Your task to perform on an android device: open device folders in google photos Image 0: 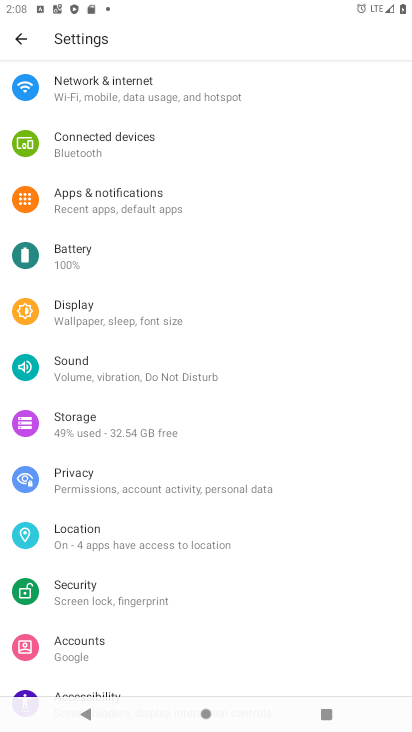
Step 0: press home button
Your task to perform on an android device: open device folders in google photos Image 1: 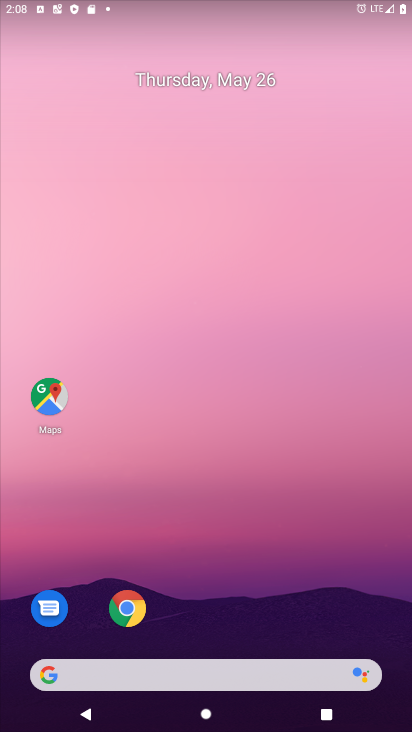
Step 1: drag from (311, 631) to (199, 112)
Your task to perform on an android device: open device folders in google photos Image 2: 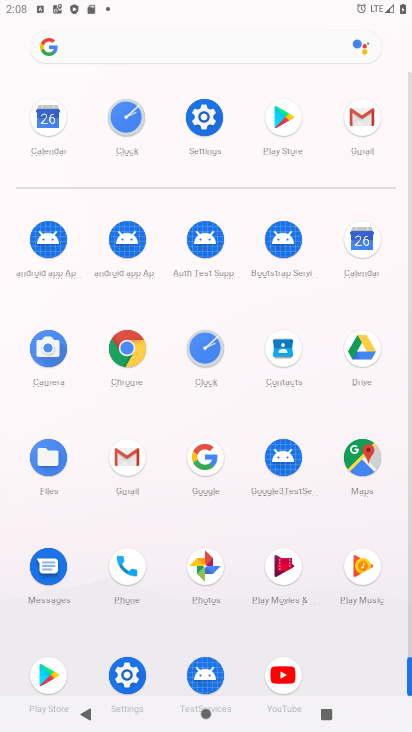
Step 2: click (210, 563)
Your task to perform on an android device: open device folders in google photos Image 3: 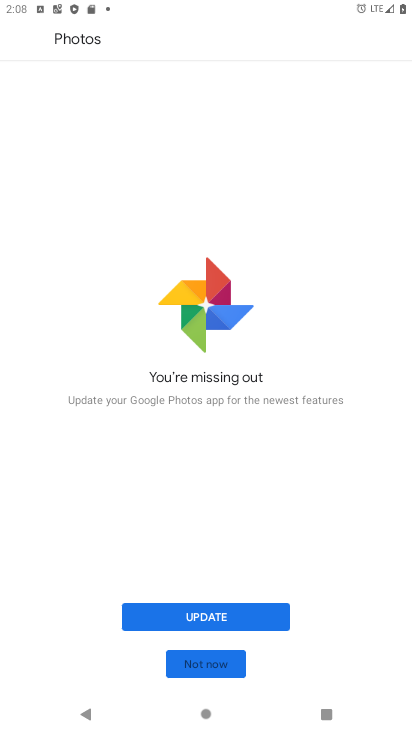
Step 3: click (210, 621)
Your task to perform on an android device: open device folders in google photos Image 4: 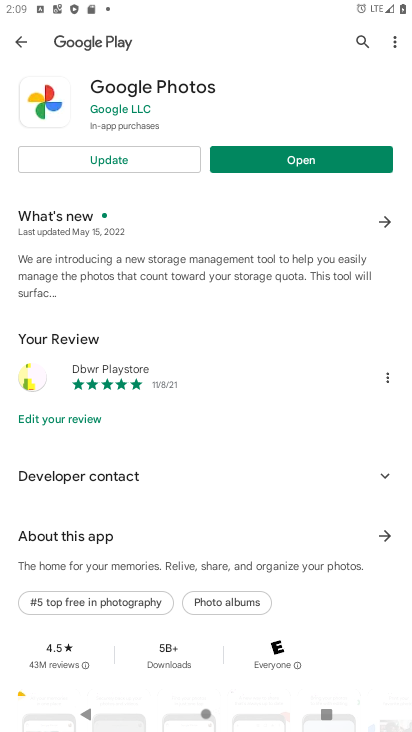
Step 4: click (114, 154)
Your task to perform on an android device: open device folders in google photos Image 5: 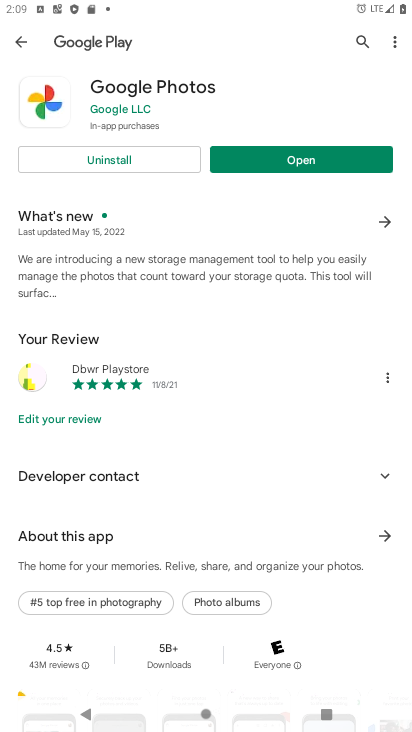
Step 5: click (309, 149)
Your task to perform on an android device: open device folders in google photos Image 6: 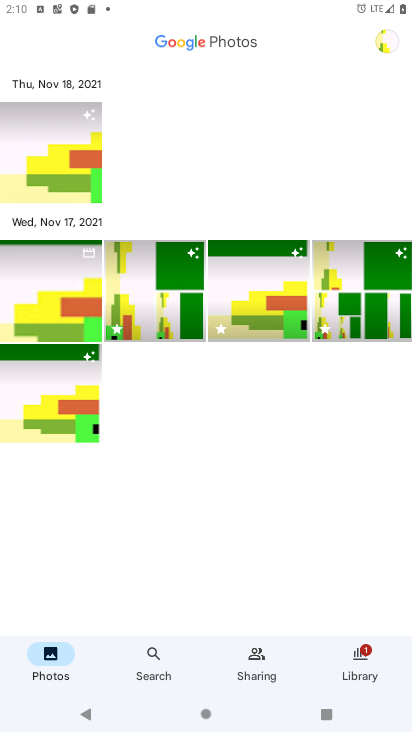
Step 6: task complete